Your task to perform on an android device: open app "Nova Launcher" Image 0: 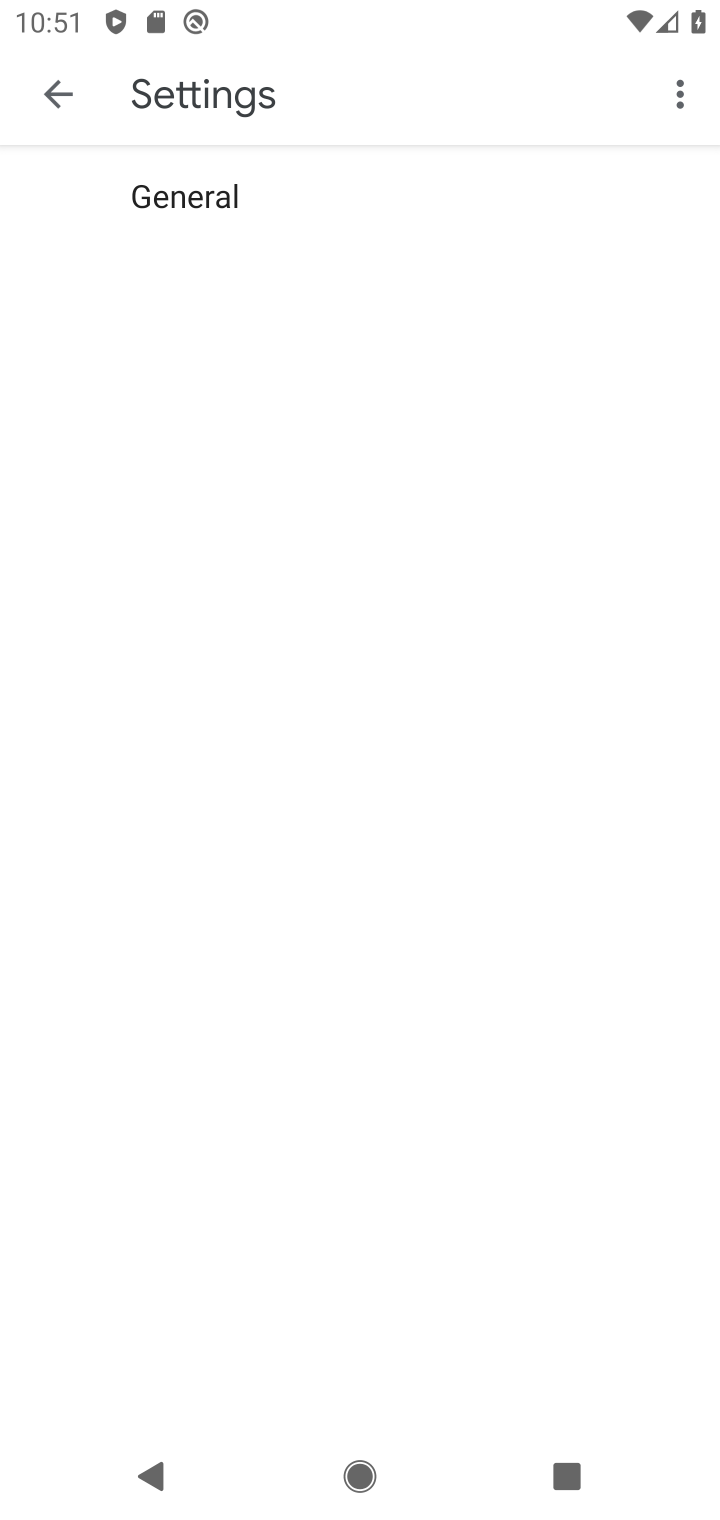
Step 0: press home button
Your task to perform on an android device: open app "Nova Launcher" Image 1: 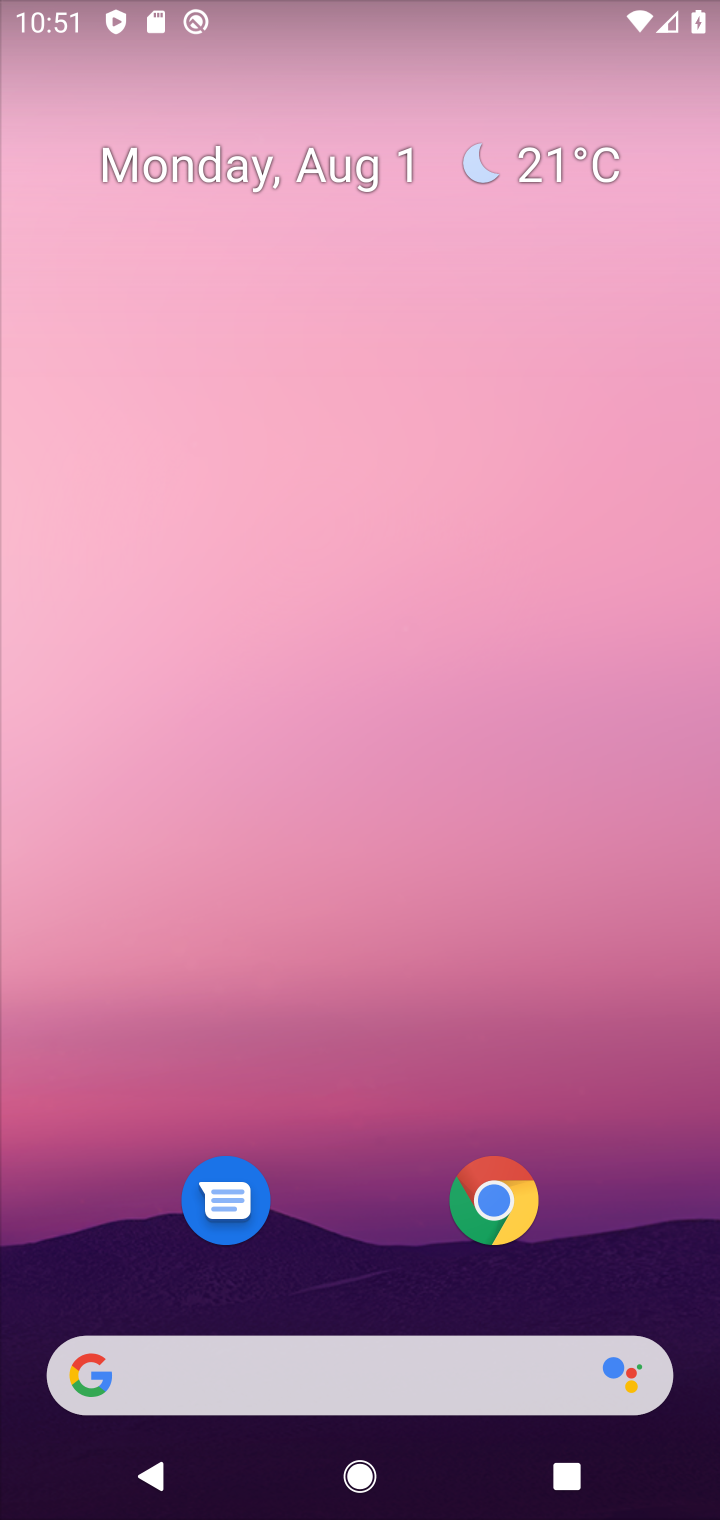
Step 1: drag from (369, 603) to (344, 125)
Your task to perform on an android device: open app "Nova Launcher" Image 2: 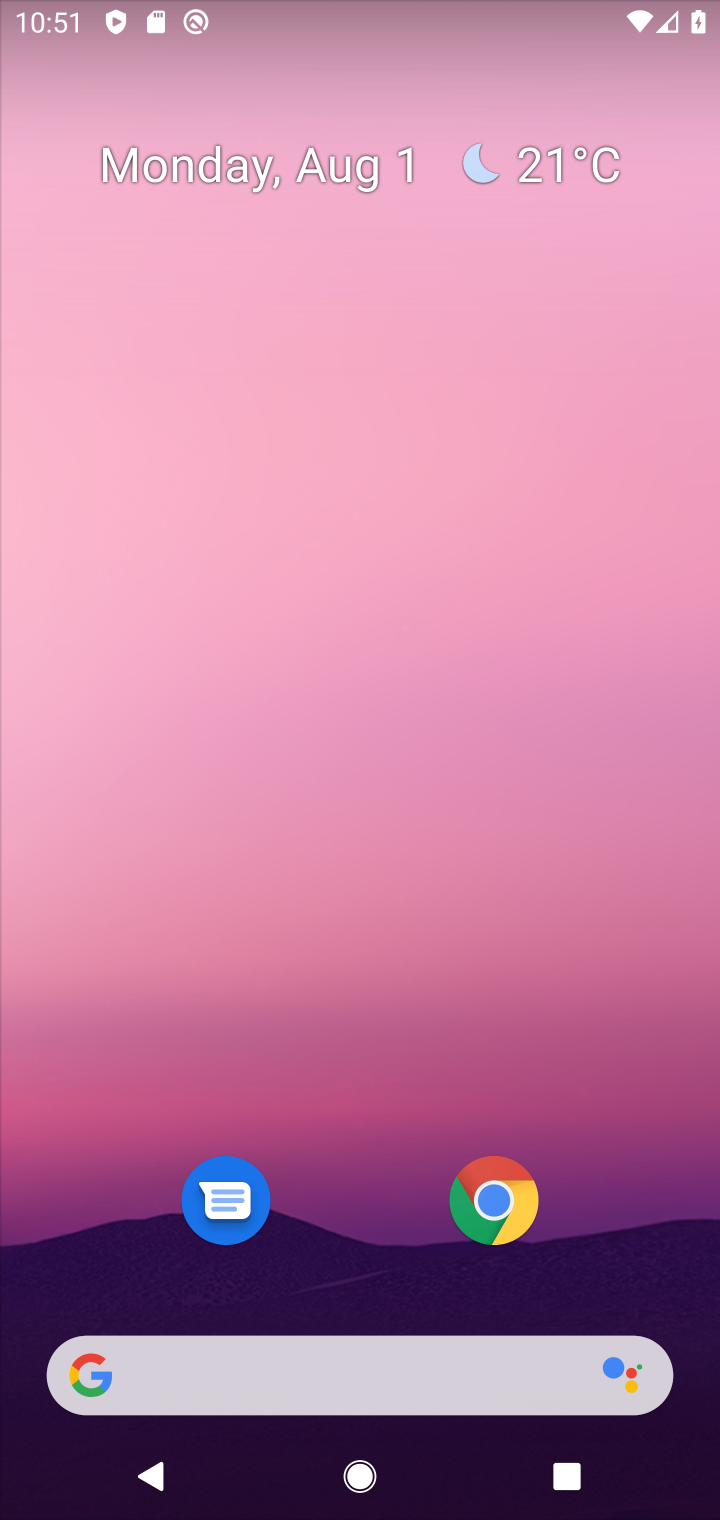
Step 2: drag from (347, 634) to (593, 12)
Your task to perform on an android device: open app "Nova Launcher" Image 3: 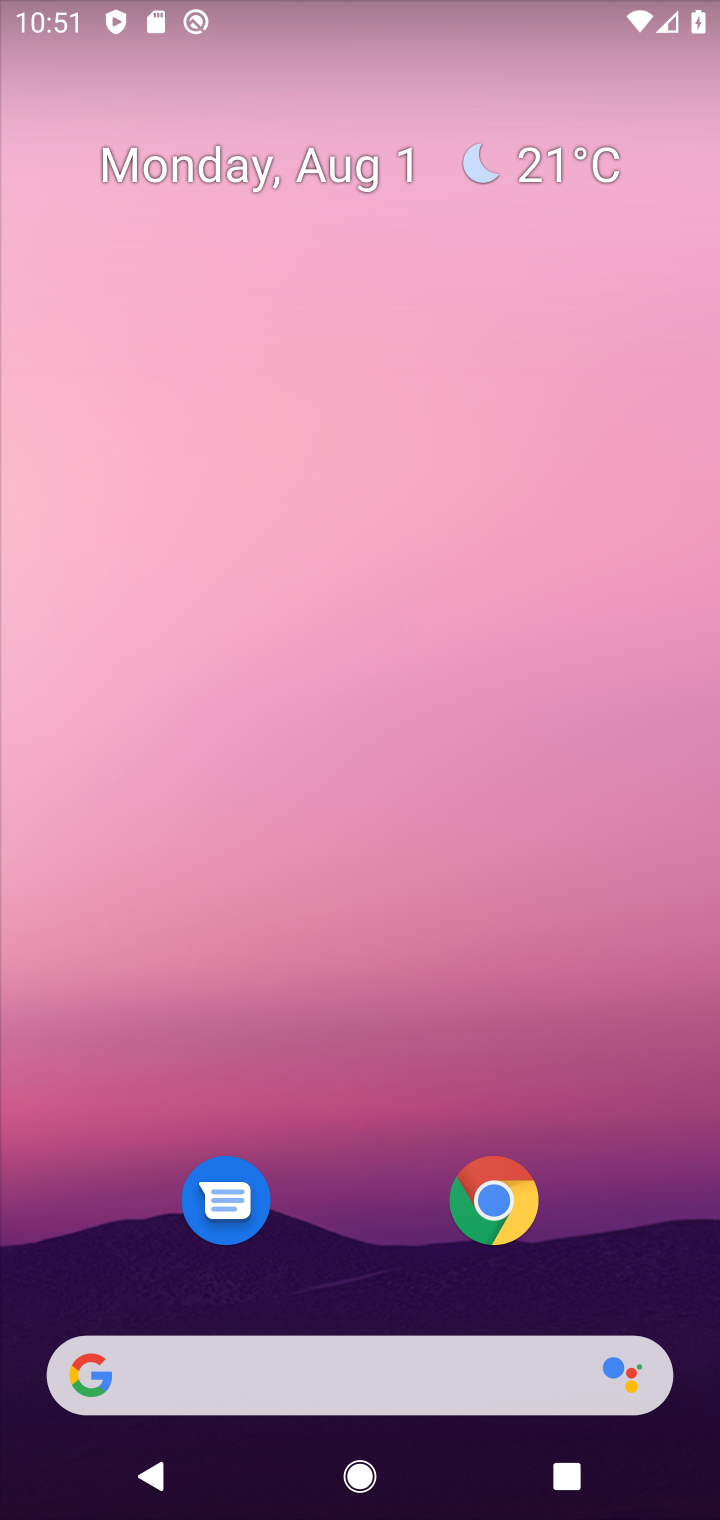
Step 3: drag from (332, 965) to (339, 48)
Your task to perform on an android device: open app "Nova Launcher" Image 4: 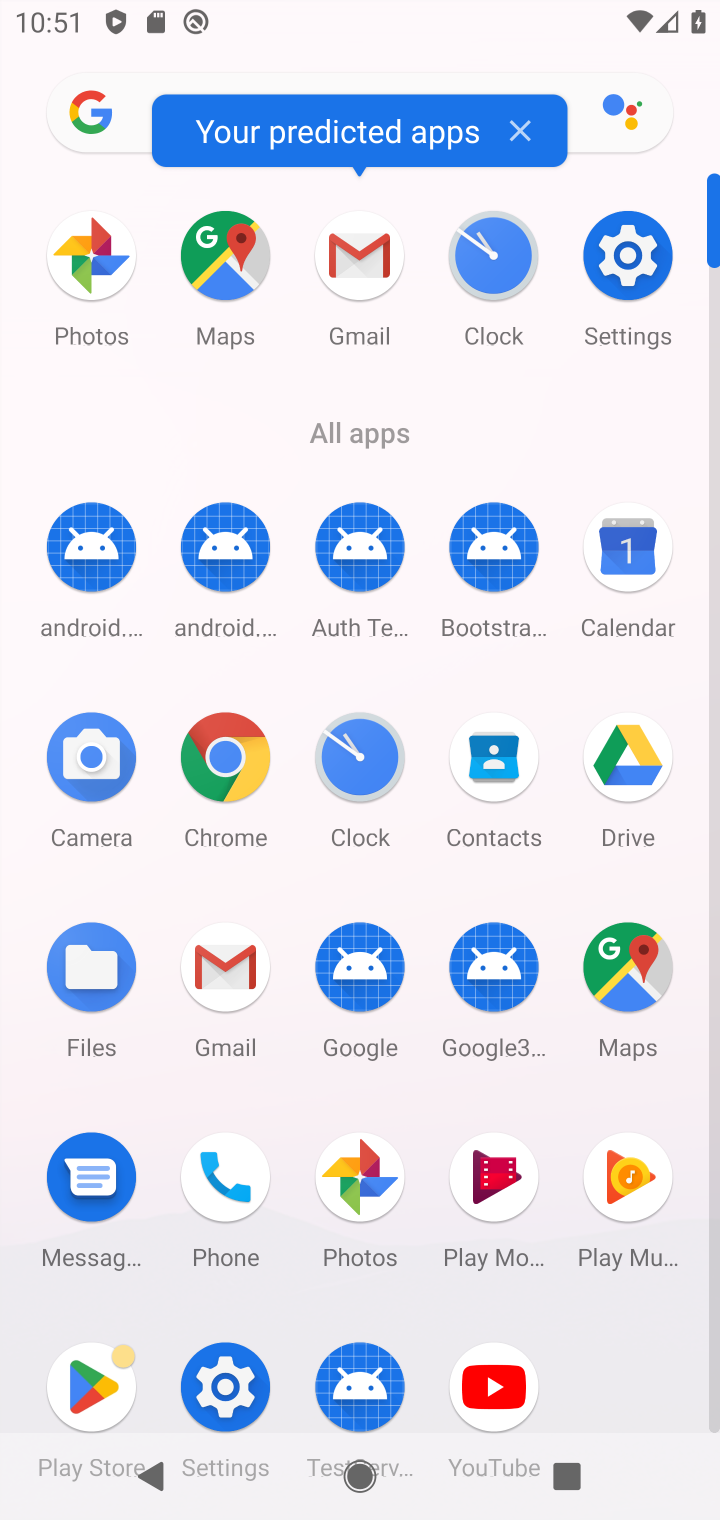
Step 4: click (97, 1389)
Your task to perform on an android device: open app "Nova Launcher" Image 5: 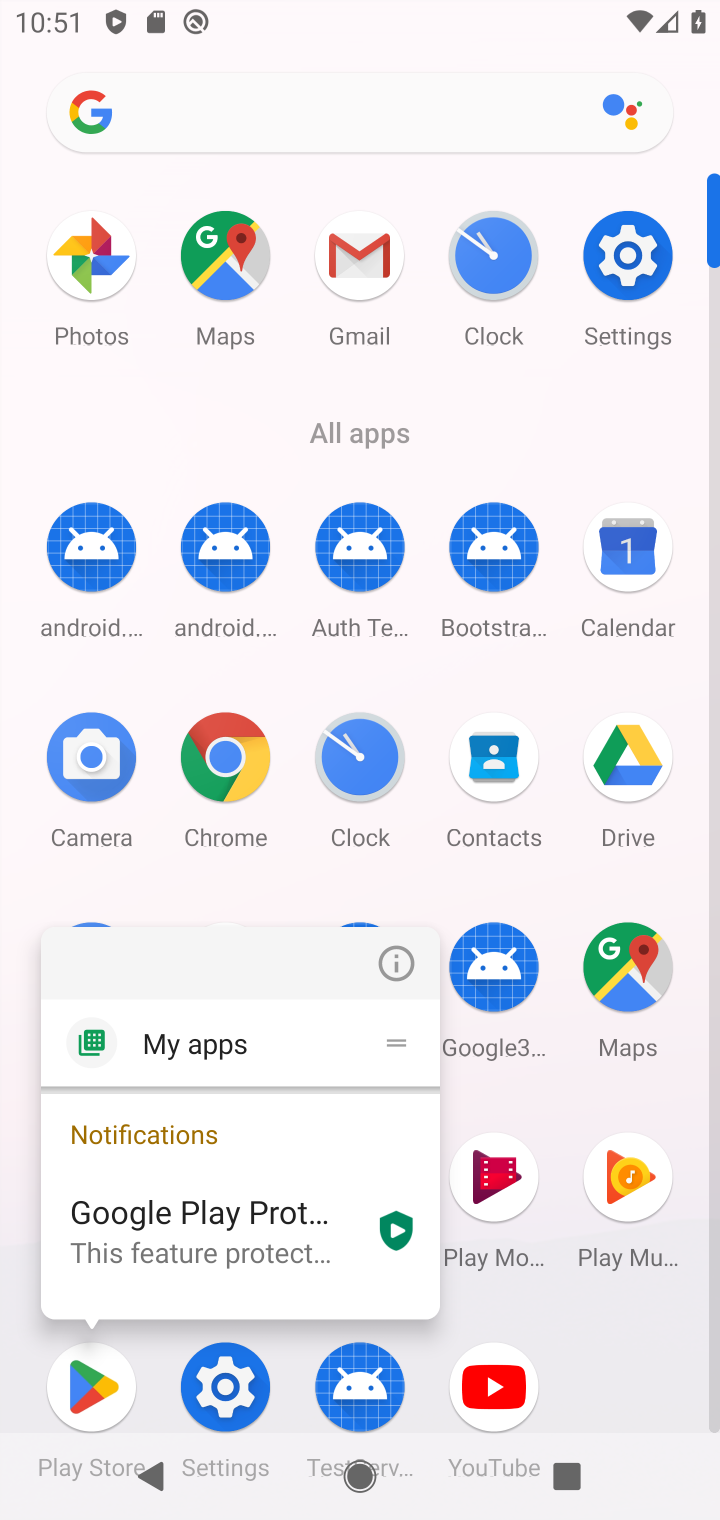
Step 5: click (96, 1372)
Your task to perform on an android device: open app "Nova Launcher" Image 6: 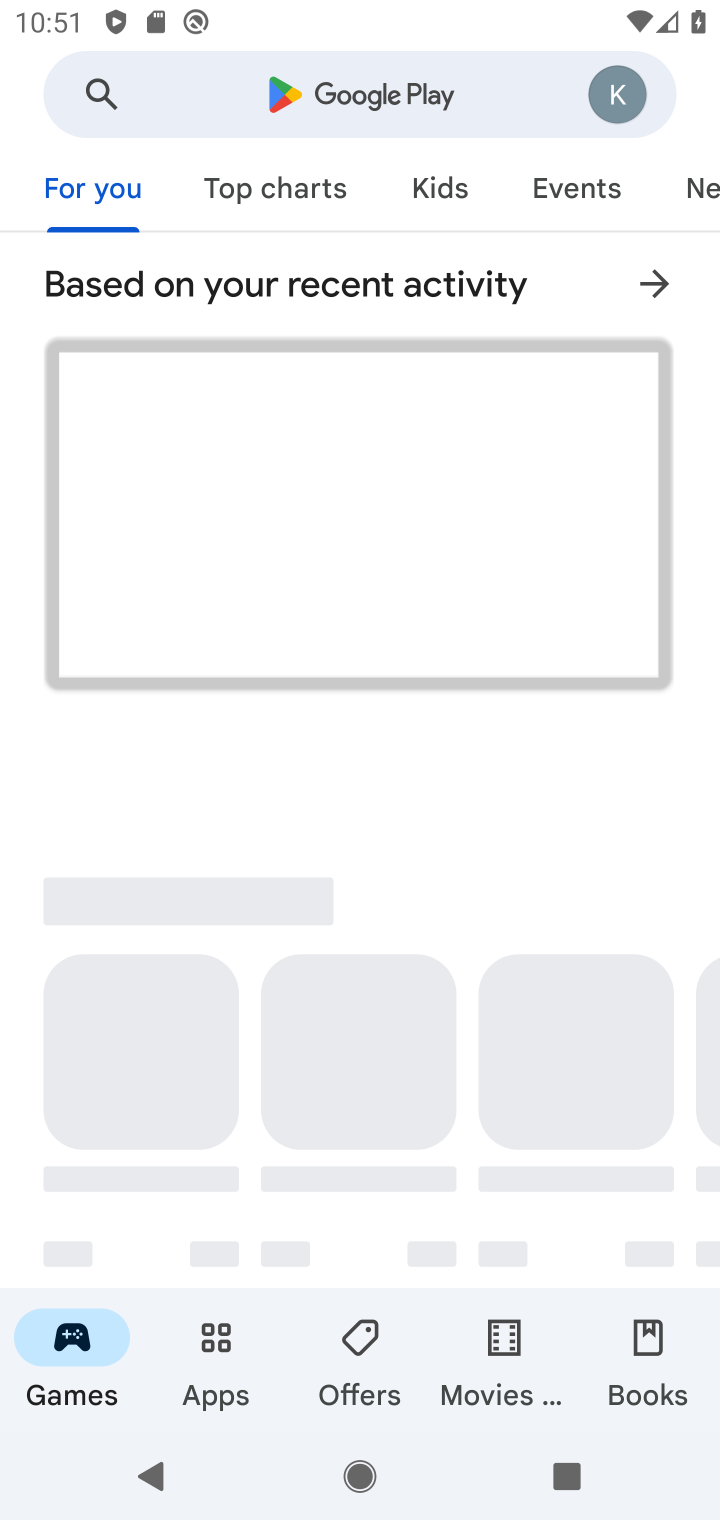
Step 6: click (257, 96)
Your task to perform on an android device: open app "Nova Launcher" Image 7: 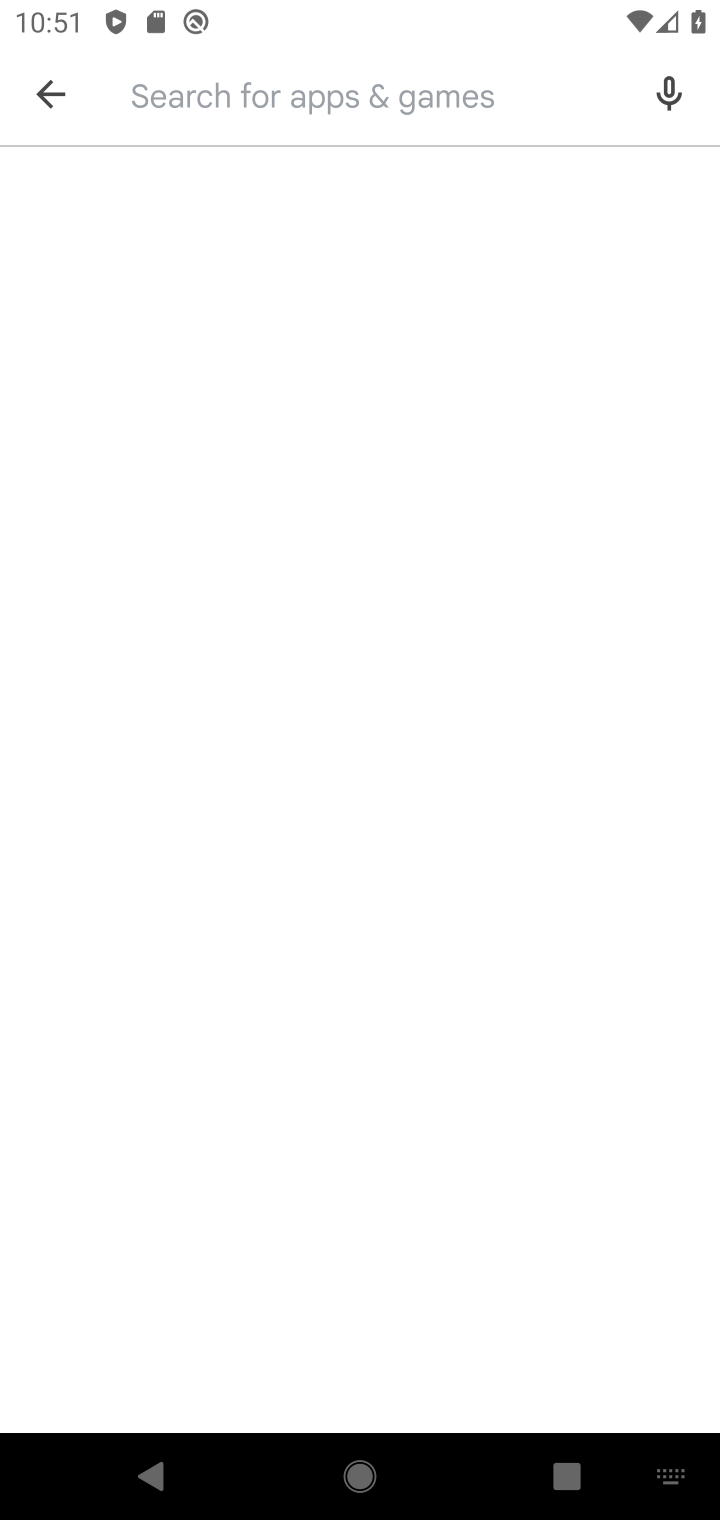
Step 7: type "Nova Launcher"
Your task to perform on an android device: open app "Nova Launcher" Image 8: 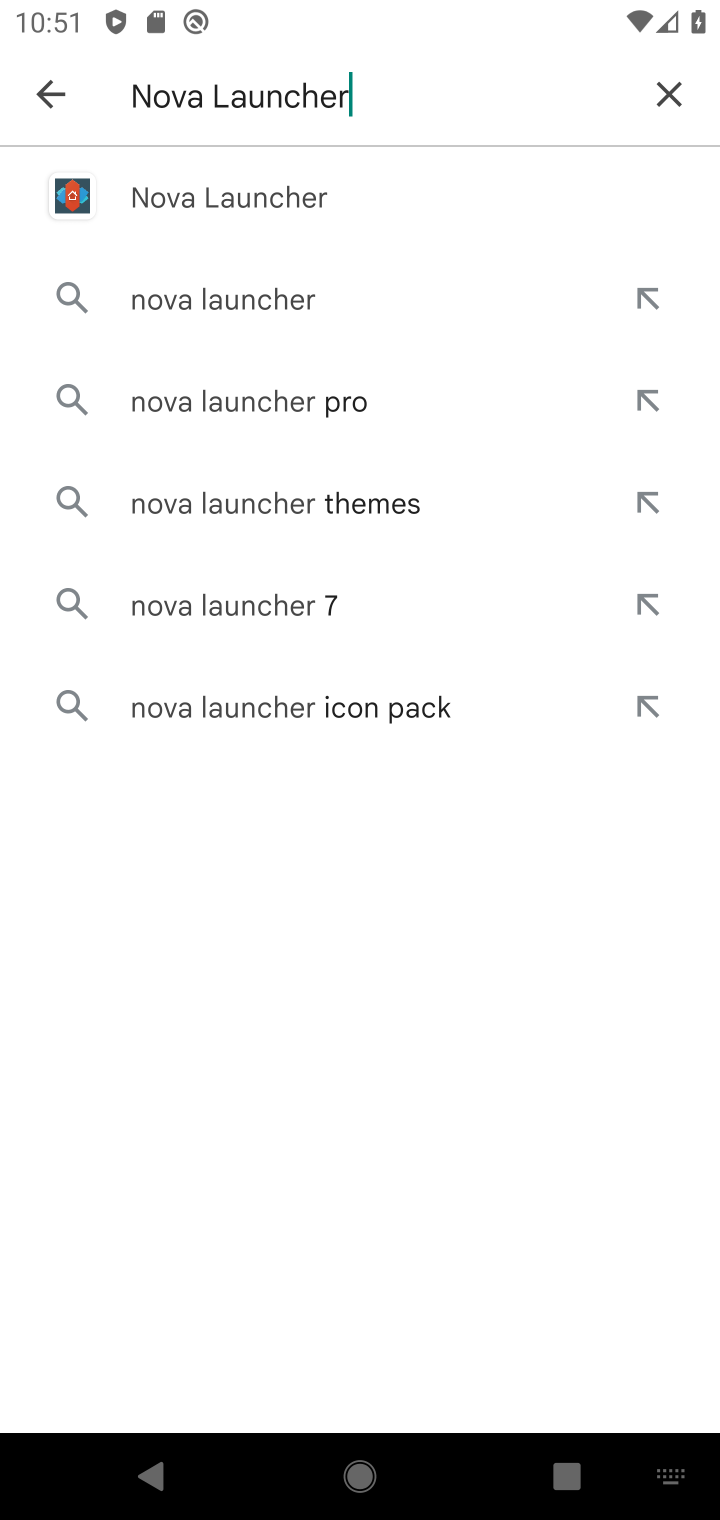
Step 8: click (241, 208)
Your task to perform on an android device: open app "Nova Launcher" Image 9: 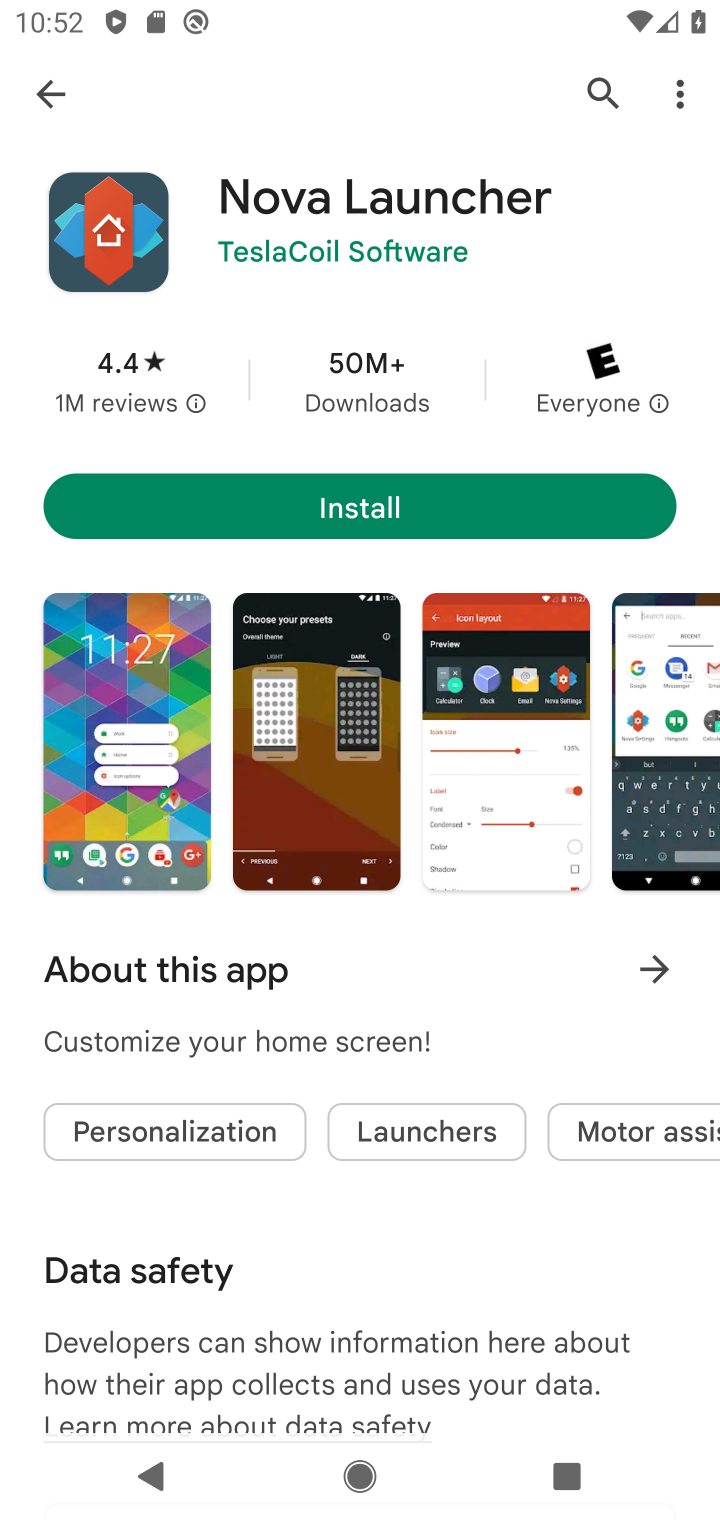
Step 9: task complete